Your task to perform on an android device: Search for vegetarian restaurants on Maps Image 0: 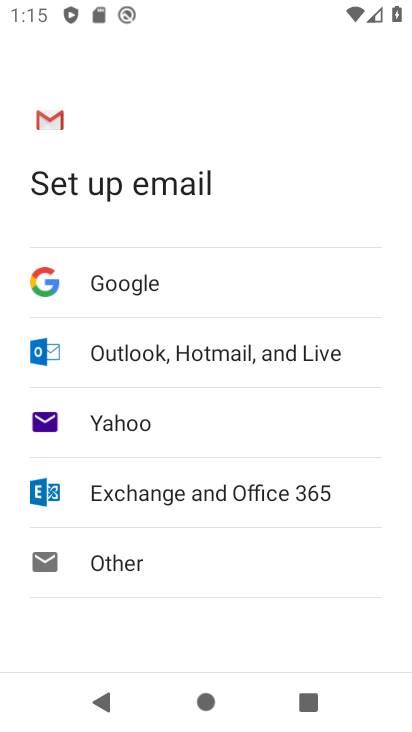
Step 0: press home button
Your task to perform on an android device: Search for vegetarian restaurants on Maps Image 1: 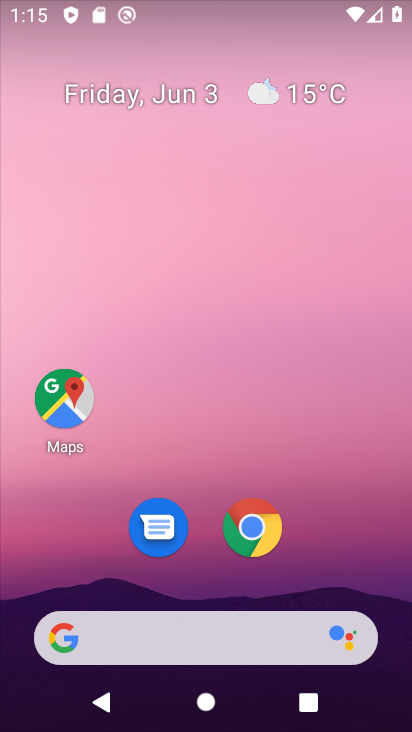
Step 1: click (61, 404)
Your task to perform on an android device: Search for vegetarian restaurants on Maps Image 2: 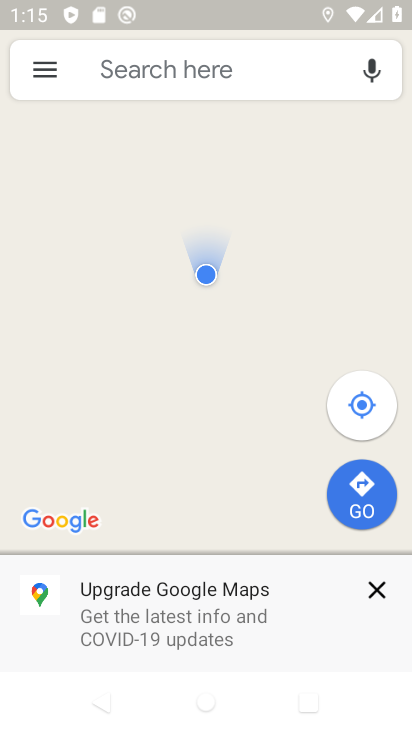
Step 2: drag from (61, 404) to (136, 60)
Your task to perform on an android device: Search for vegetarian restaurants on Maps Image 3: 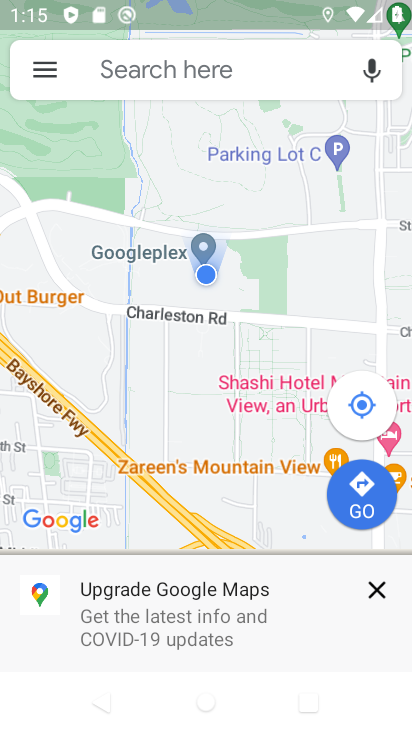
Step 3: click (136, 60)
Your task to perform on an android device: Search for vegetarian restaurants on Maps Image 4: 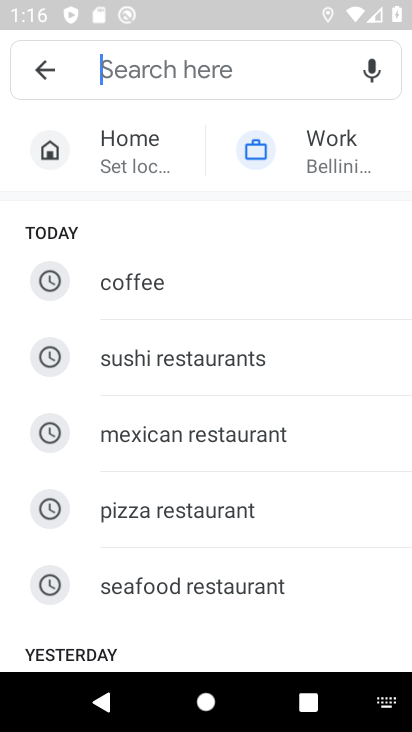
Step 4: press home button
Your task to perform on an android device: Search for vegetarian restaurants on Maps Image 5: 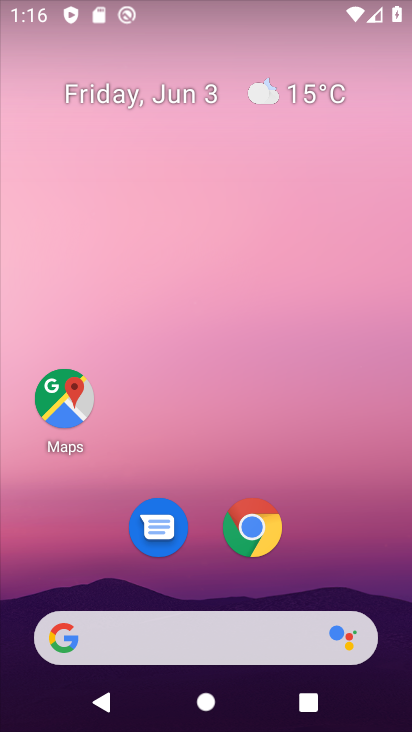
Step 5: click (73, 395)
Your task to perform on an android device: Search for vegetarian restaurants on Maps Image 6: 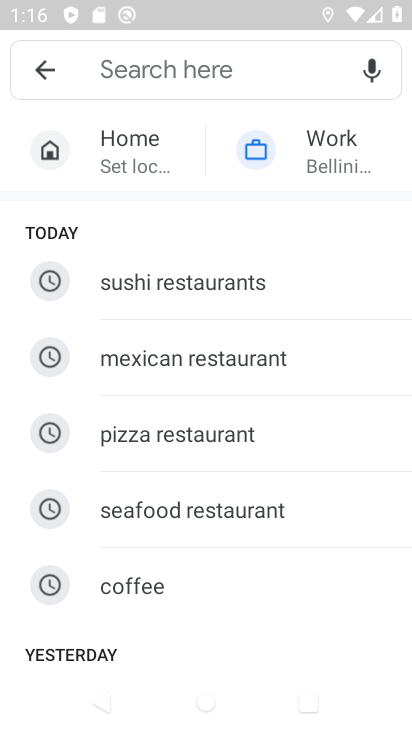
Step 6: click (210, 76)
Your task to perform on an android device: Search for vegetarian restaurants on Maps Image 7: 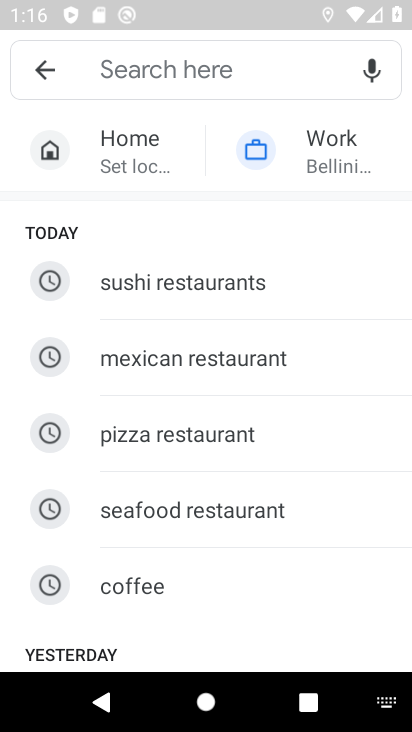
Step 7: type "veg"
Your task to perform on an android device: Search for vegetarian restaurants on Maps Image 8: 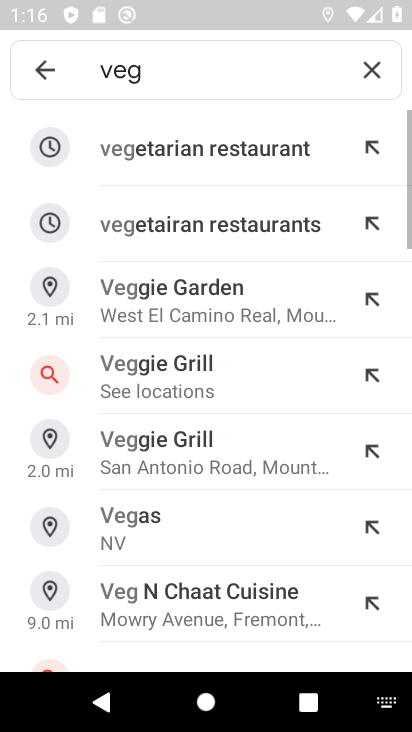
Step 8: click (208, 154)
Your task to perform on an android device: Search for vegetarian restaurants on Maps Image 9: 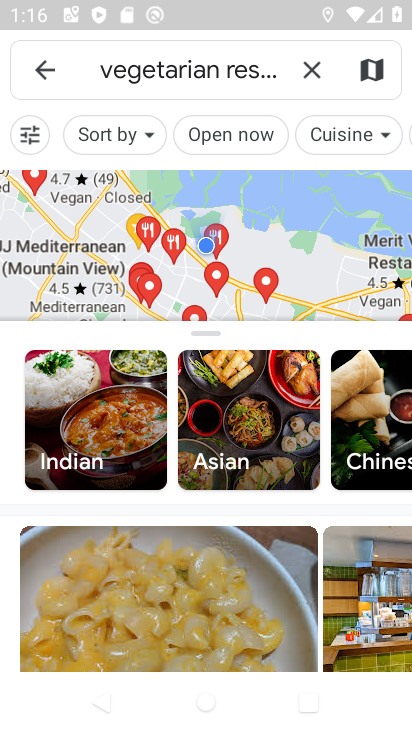
Step 9: task complete